Your task to perform on an android device: check storage Image 0: 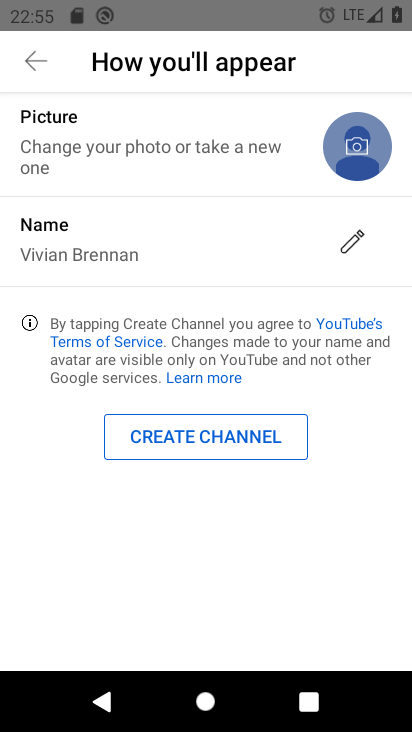
Step 0: press home button
Your task to perform on an android device: check storage Image 1: 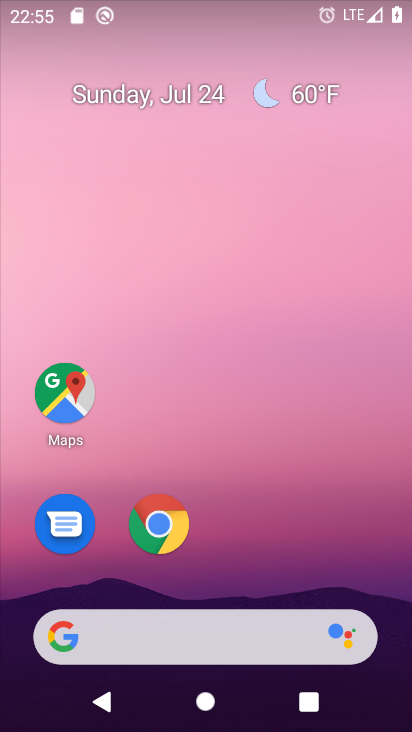
Step 1: drag from (258, 563) to (282, 20)
Your task to perform on an android device: check storage Image 2: 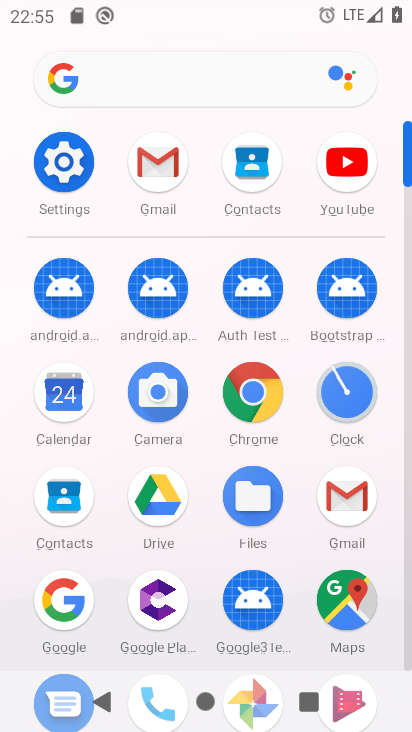
Step 2: click (71, 166)
Your task to perform on an android device: check storage Image 3: 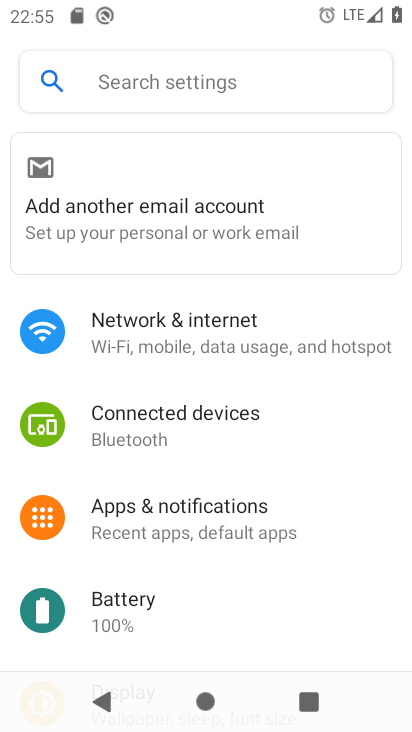
Step 3: drag from (202, 560) to (265, 1)
Your task to perform on an android device: check storage Image 4: 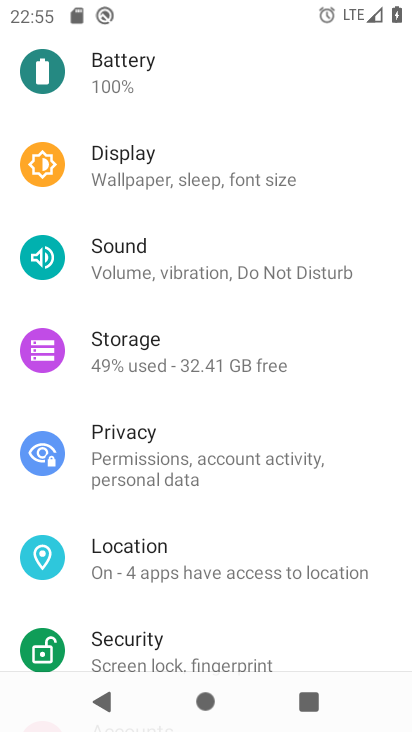
Step 4: click (129, 345)
Your task to perform on an android device: check storage Image 5: 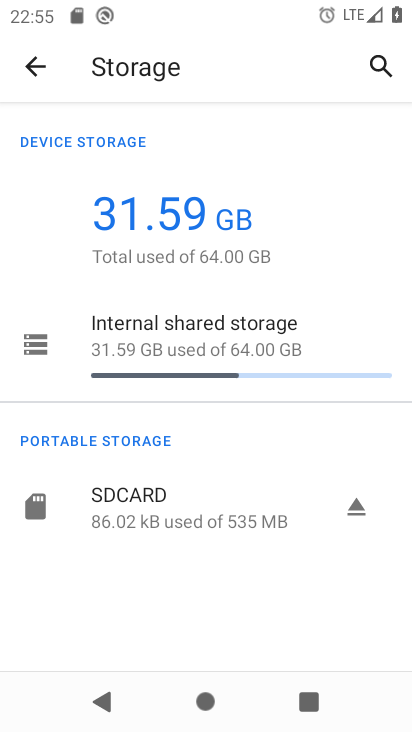
Step 5: task complete